Your task to perform on an android device: search for starred emails in the gmail app Image 0: 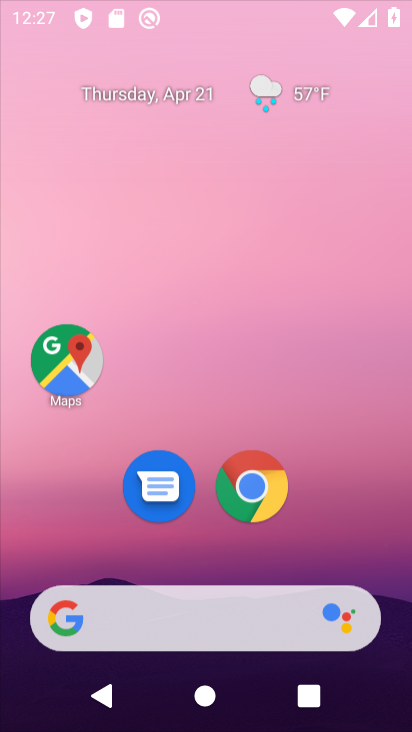
Step 0: click (364, 188)
Your task to perform on an android device: search for starred emails in the gmail app Image 1: 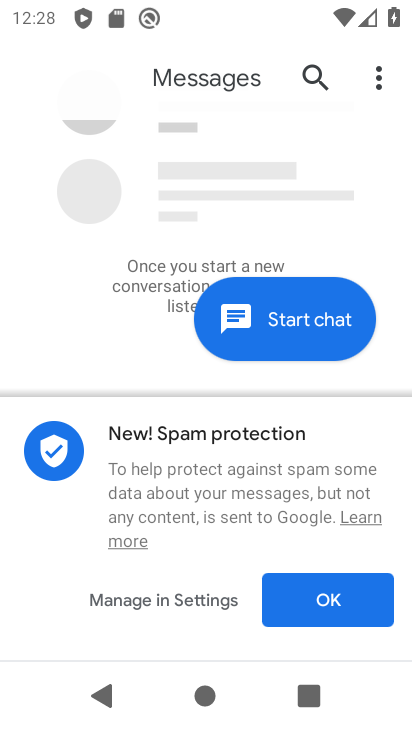
Step 1: press home button
Your task to perform on an android device: search for starred emails in the gmail app Image 2: 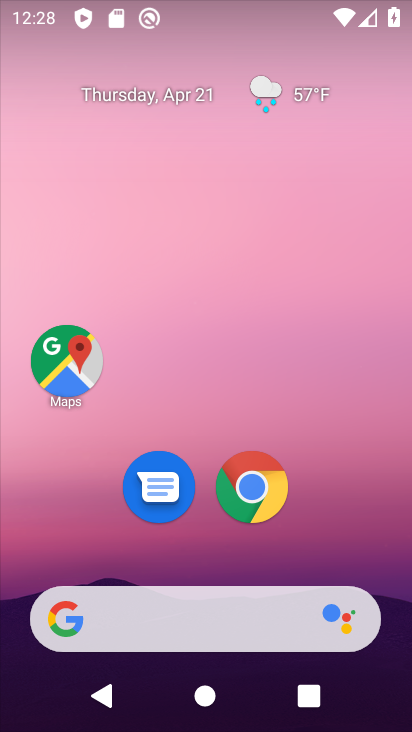
Step 2: drag from (377, 459) to (394, 122)
Your task to perform on an android device: search for starred emails in the gmail app Image 3: 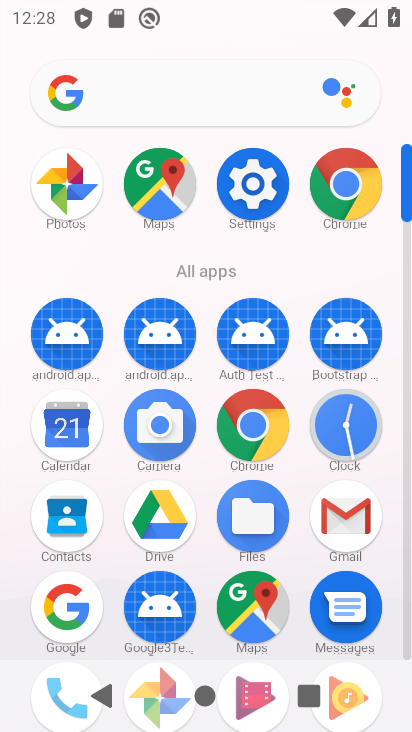
Step 3: click (346, 521)
Your task to perform on an android device: search for starred emails in the gmail app Image 4: 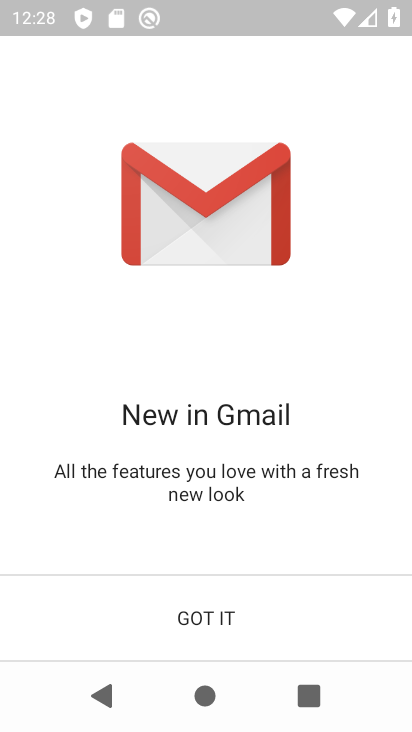
Step 4: click (207, 621)
Your task to perform on an android device: search for starred emails in the gmail app Image 5: 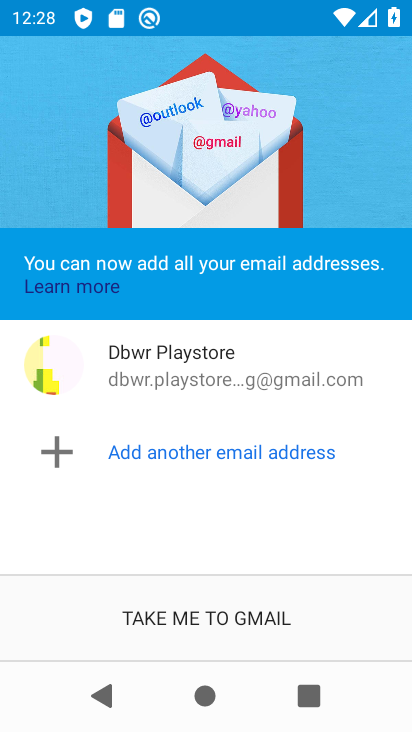
Step 5: click (210, 619)
Your task to perform on an android device: search for starred emails in the gmail app Image 6: 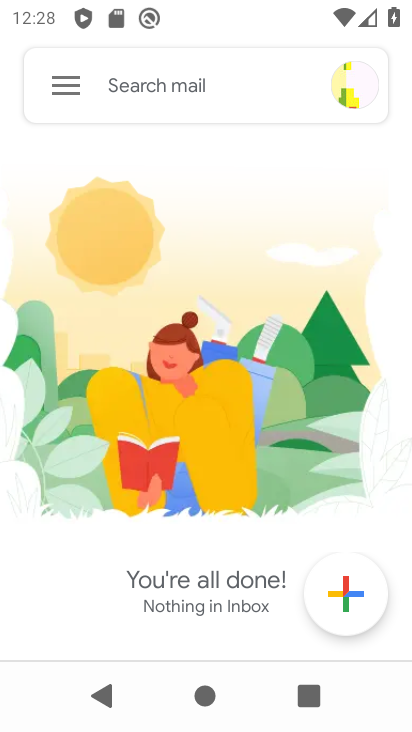
Step 6: click (63, 92)
Your task to perform on an android device: search for starred emails in the gmail app Image 7: 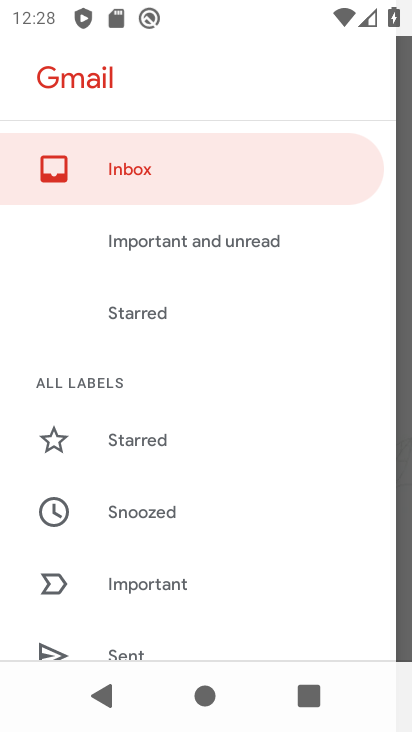
Step 7: click (158, 446)
Your task to perform on an android device: search for starred emails in the gmail app Image 8: 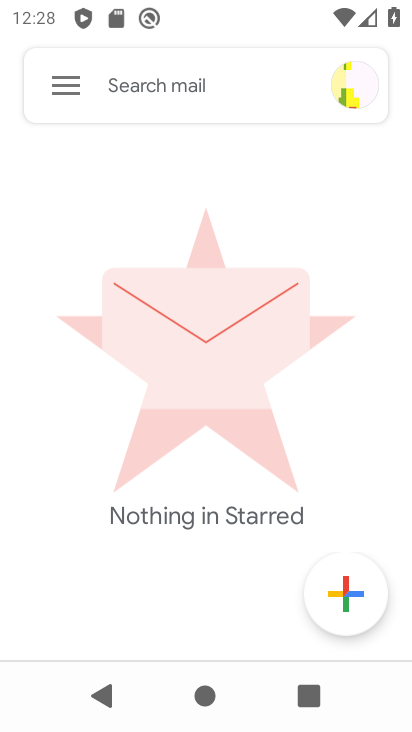
Step 8: task complete